Your task to perform on an android device: choose inbox layout in the gmail app Image 0: 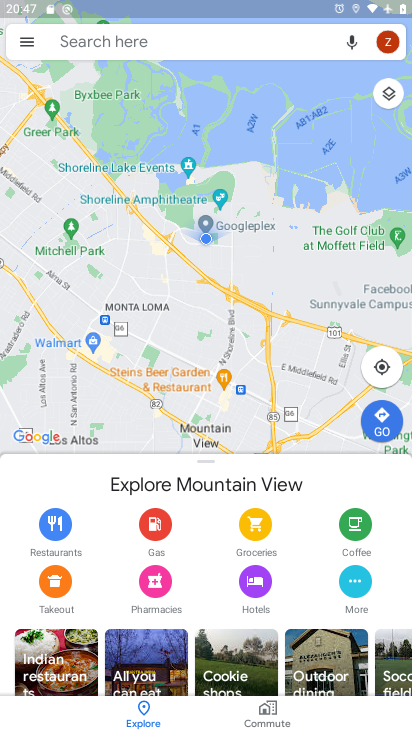
Step 0: press home button
Your task to perform on an android device: choose inbox layout in the gmail app Image 1: 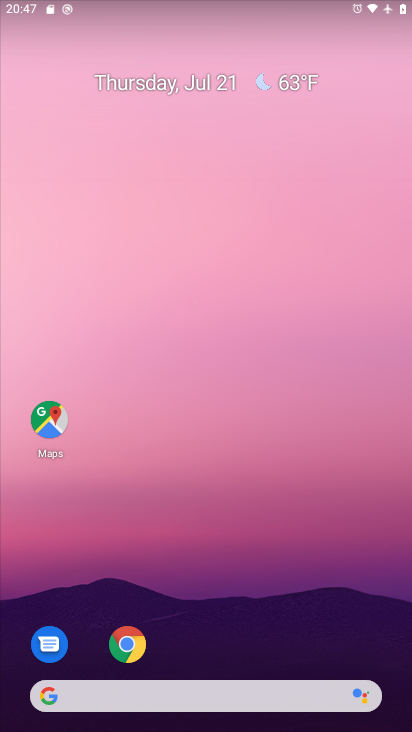
Step 1: drag from (157, 642) to (150, 154)
Your task to perform on an android device: choose inbox layout in the gmail app Image 2: 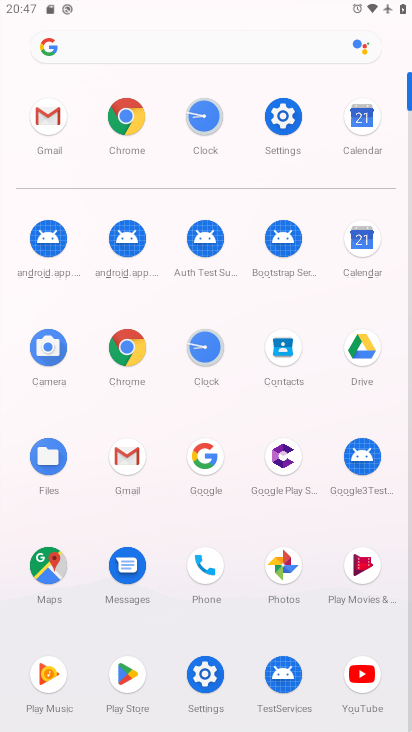
Step 2: click (44, 101)
Your task to perform on an android device: choose inbox layout in the gmail app Image 3: 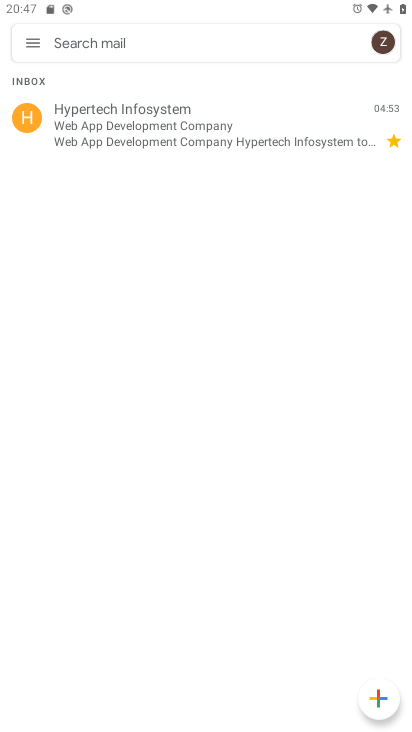
Step 3: click (33, 39)
Your task to perform on an android device: choose inbox layout in the gmail app Image 4: 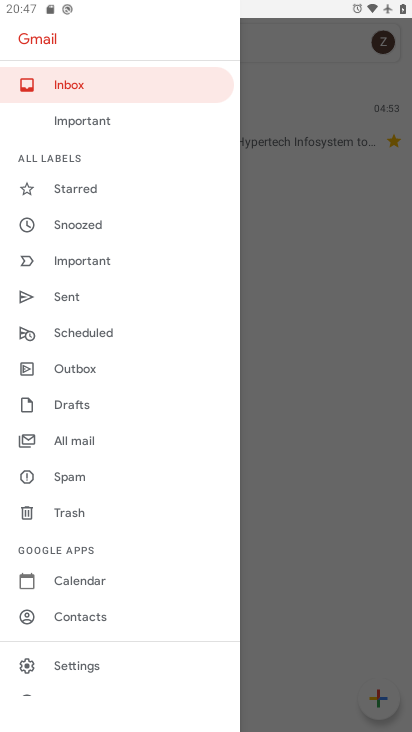
Step 4: click (93, 662)
Your task to perform on an android device: choose inbox layout in the gmail app Image 5: 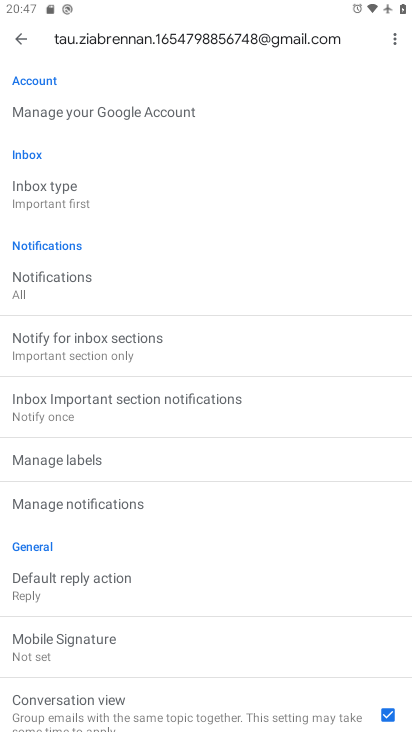
Step 5: click (79, 213)
Your task to perform on an android device: choose inbox layout in the gmail app Image 6: 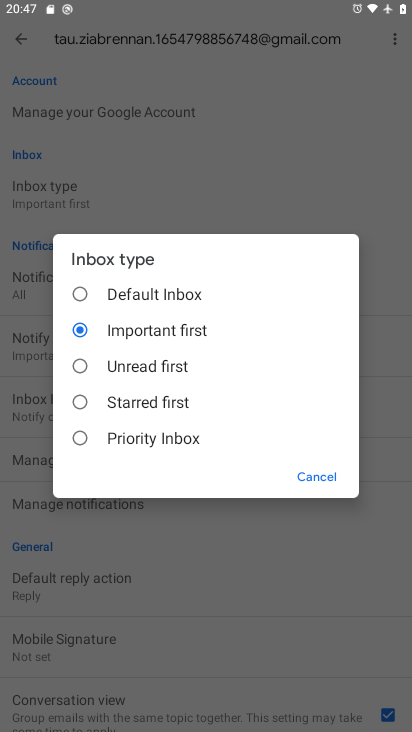
Step 6: click (117, 282)
Your task to perform on an android device: choose inbox layout in the gmail app Image 7: 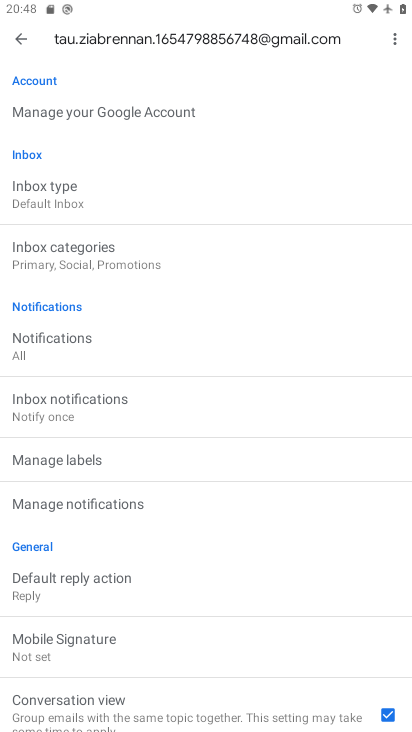
Step 7: task complete